Your task to perform on an android device: Clear all items from cart on newegg. Add "acer nitro" to the cart on newegg Image 0: 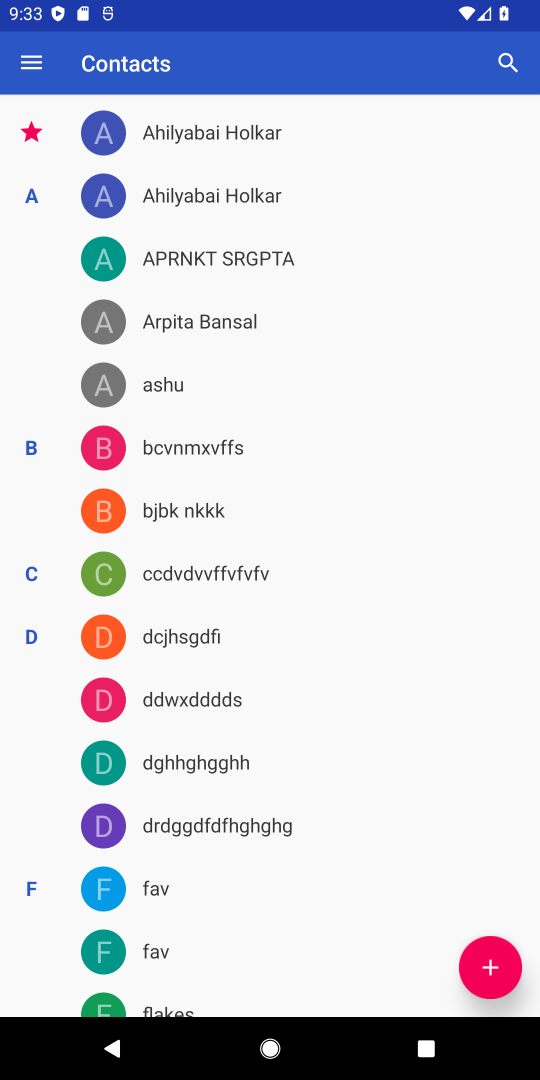
Step 0: press home button
Your task to perform on an android device: Clear all items from cart on newegg. Add "acer nitro" to the cart on newegg Image 1: 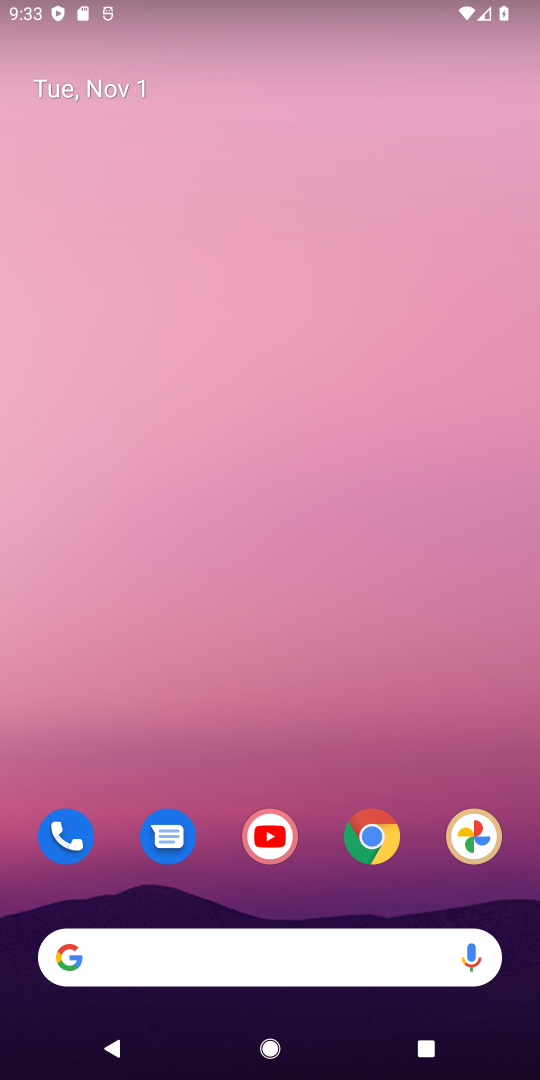
Step 1: click (374, 844)
Your task to perform on an android device: Clear all items from cart on newegg. Add "acer nitro" to the cart on newegg Image 2: 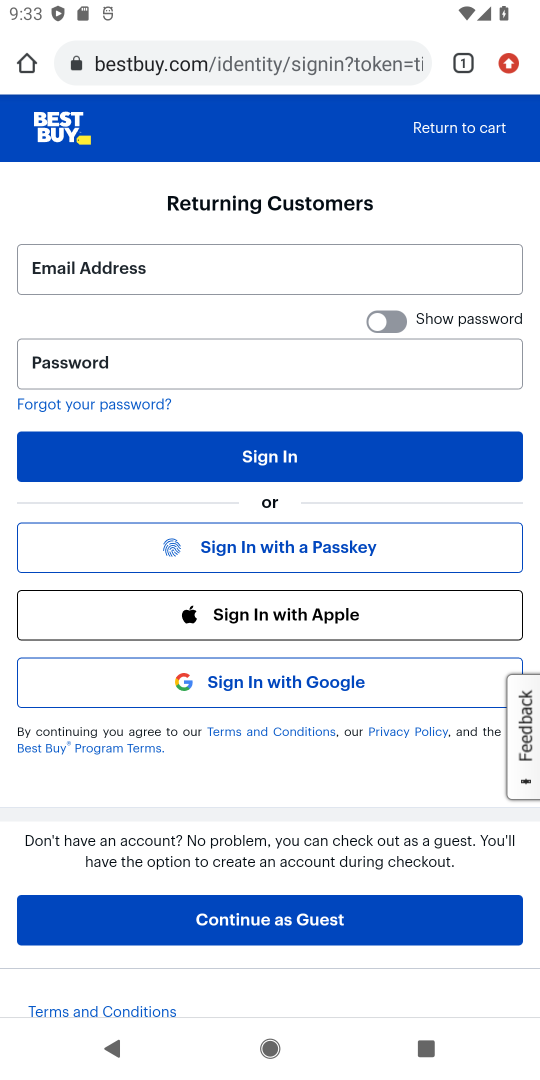
Step 2: click (172, 56)
Your task to perform on an android device: Clear all items from cart on newegg. Add "acer nitro" to the cart on newegg Image 3: 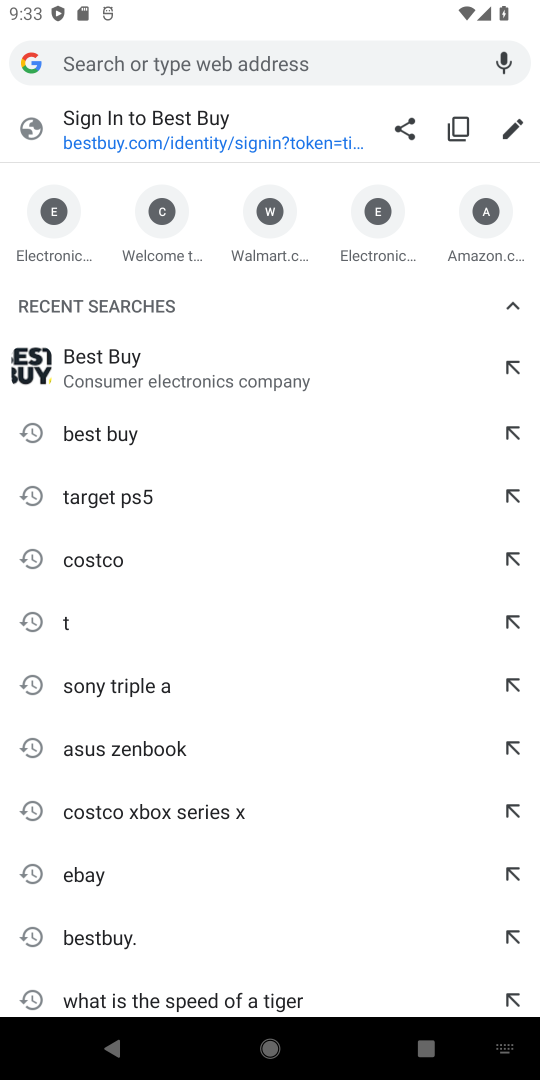
Step 3: type "newegg"
Your task to perform on an android device: Clear all items from cart on newegg. Add "acer nitro" to the cart on newegg Image 4: 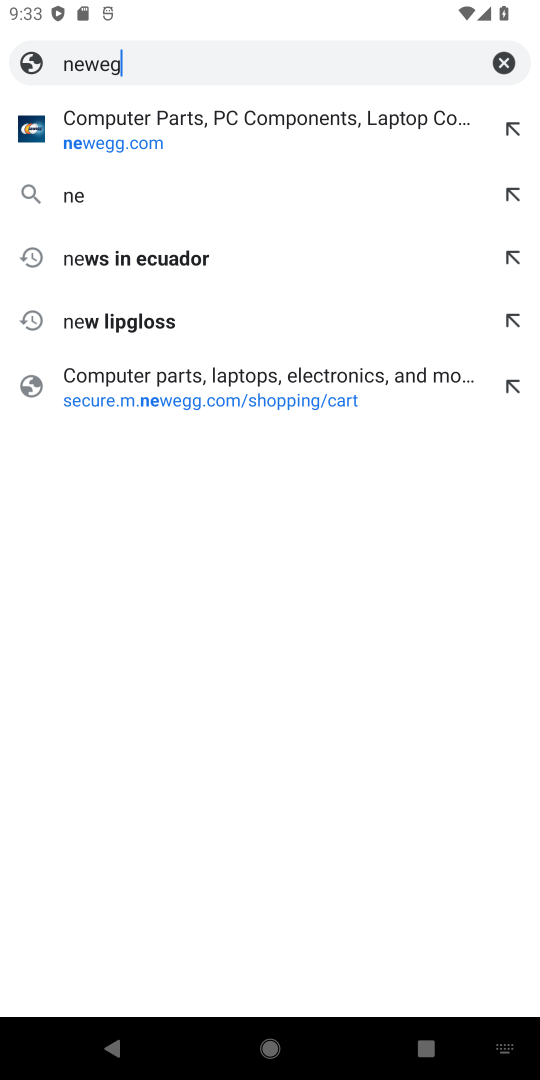
Step 4: type ""
Your task to perform on an android device: Clear all items from cart on newegg. Add "acer nitro" to the cart on newegg Image 5: 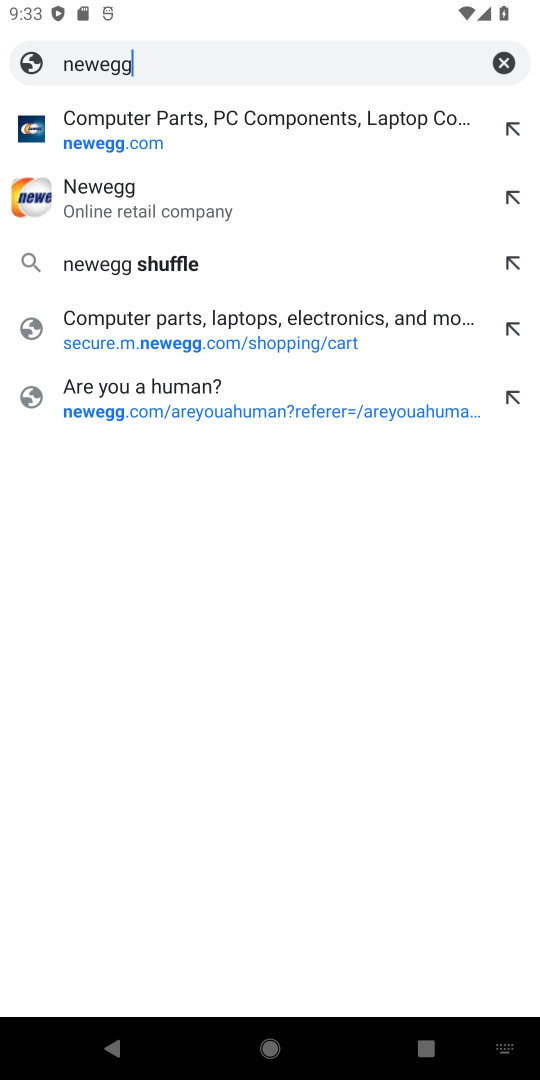
Step 5: click (141, 138)
Your task to perform on an android device: Clear all items from cart on newegg. Add "acer nitro" to the cart on newegg Image 6: 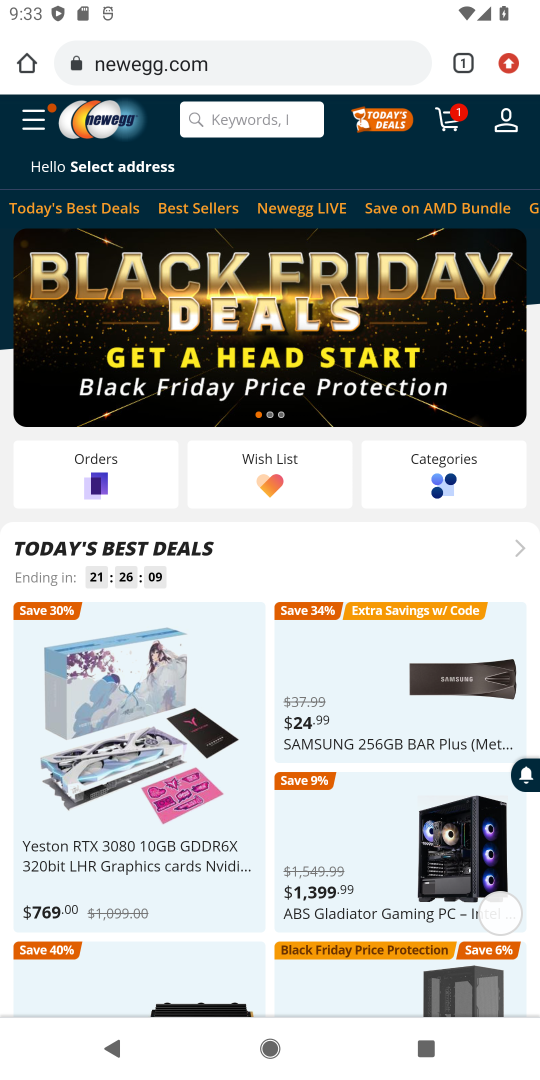
Step 6: click (201, 115)
Your task to perform on an android device: Clear all items from cart on newegg. Add "acer nitro" to the cart on newegg Image 7: 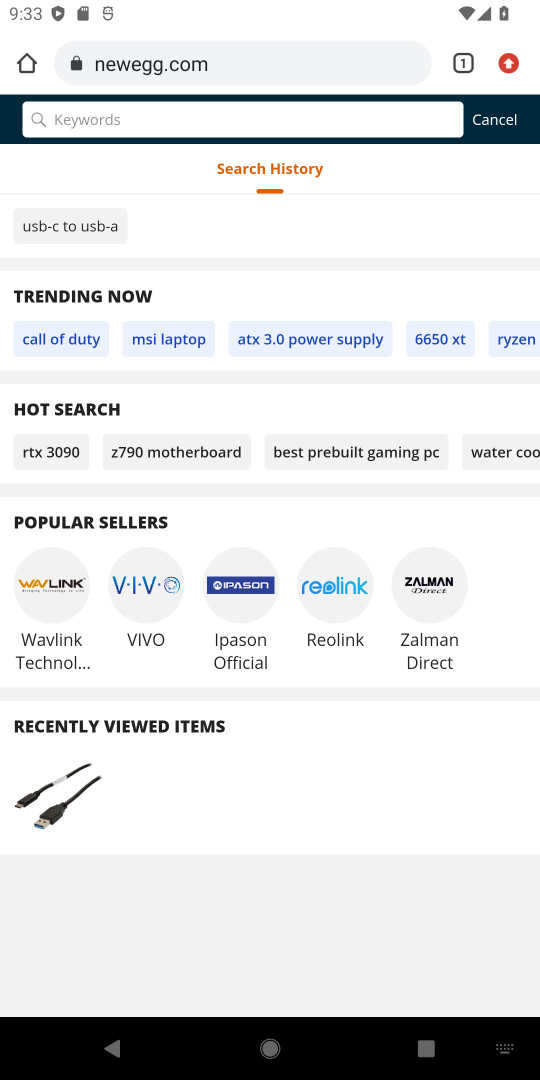
Step 7: click (427, 210)
Your task to perform on an android device: Clear all items from cart on newegg. Add "acer nitro" to the cart on newegg Image 8: 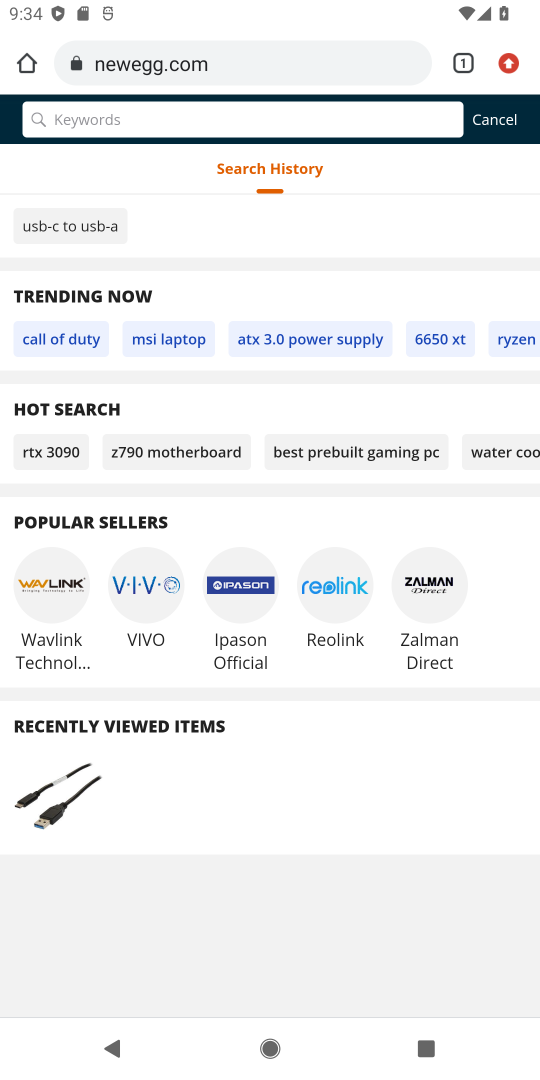
Step 8: press back button
Your task to perform on an android device: Clear all items from cart on newegg. Add "acer nitro" to the cart on newegg Image 9: 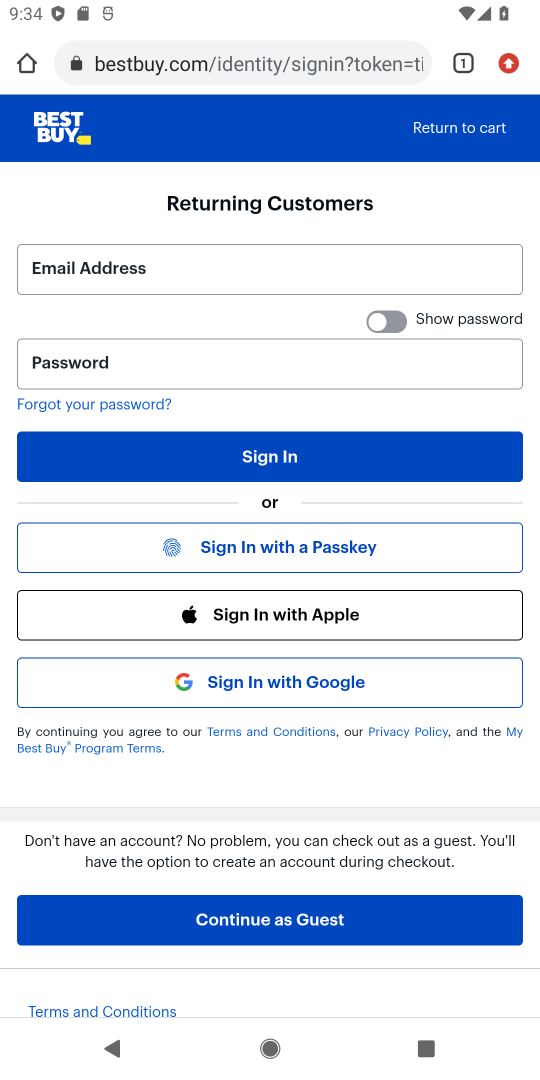
Step 9: click (330, 66)
Your task to perform on an android device: Clear all items from cart on newegg. Add "acer nitro" to the cart on newegg Image 10: 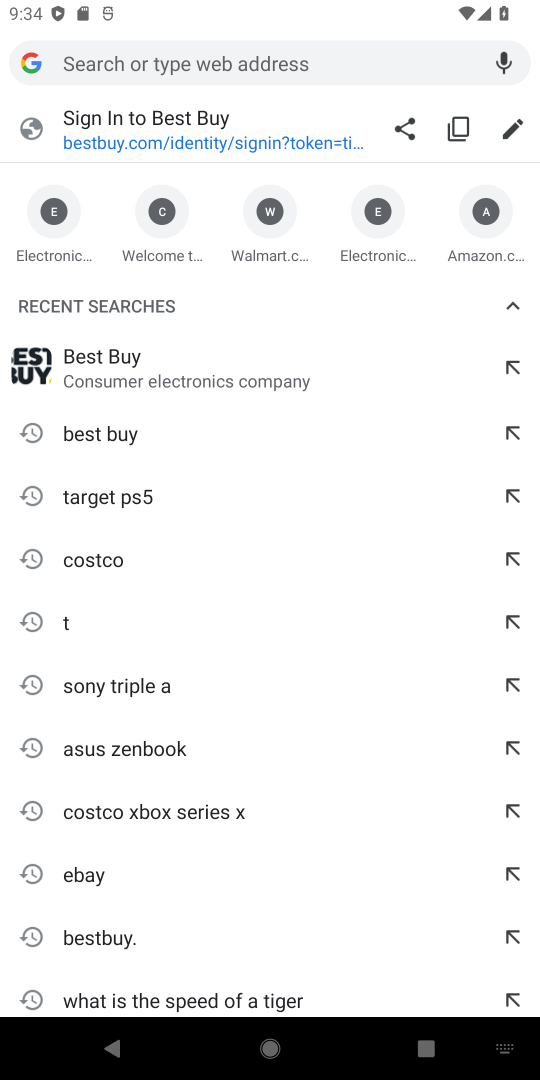
Step 10: type "newegg"
Your task to perform on an android device: Clear all items from cart on newegg. Add "acer nitro" to the cart on newegg Image 11: 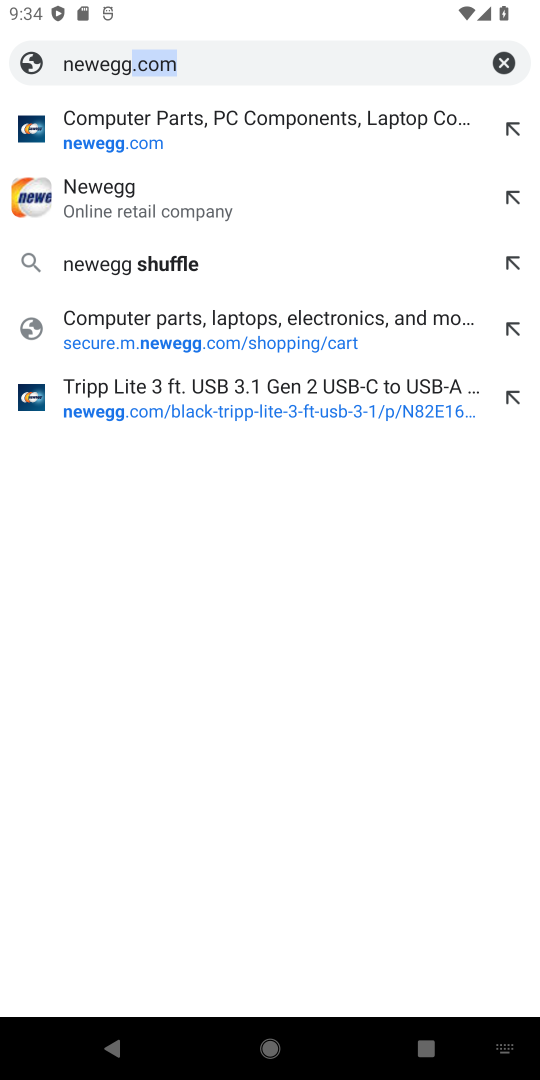
Step 11: click (99, 320)
Your task to perform on an android device: Clear all items from cart on newegg. Add "acer nitro" to the cart on newegg Image 12: 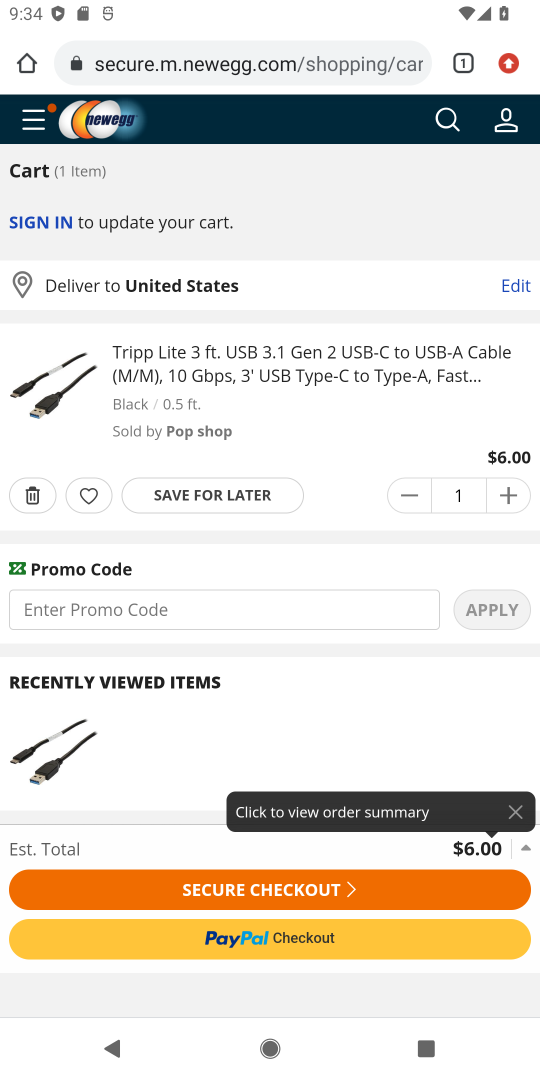
Step 12: click (30, 491)
Your task to perform on an android device: Clear all items from cart on newegg. Add "acer nitro" to the cart on newegg Image 13: 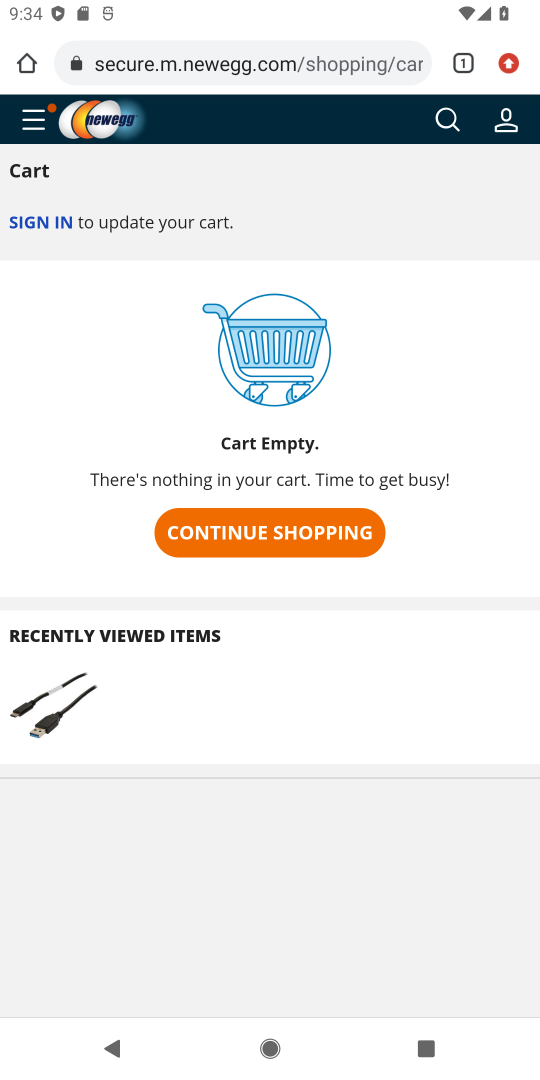
Step 13: task complete